Your task to perform on an android device: Open network settings Image 0: 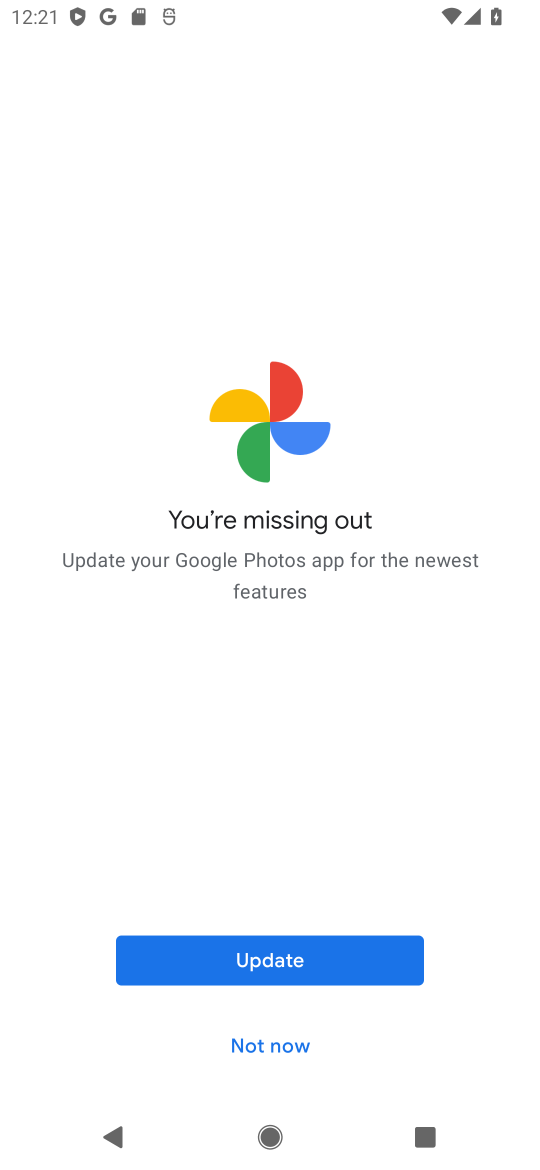
Step 0: press back button
Your task to perform on an android device: Open network settings Image 1: 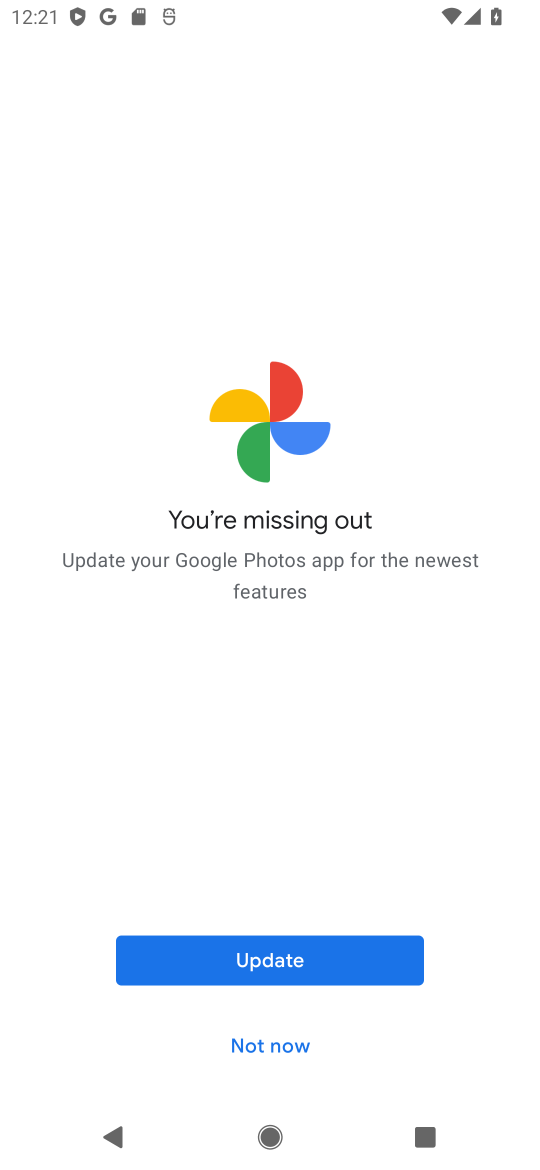
Step 1: press back button
Your task to perform on an android device: Open network settings Image 2: 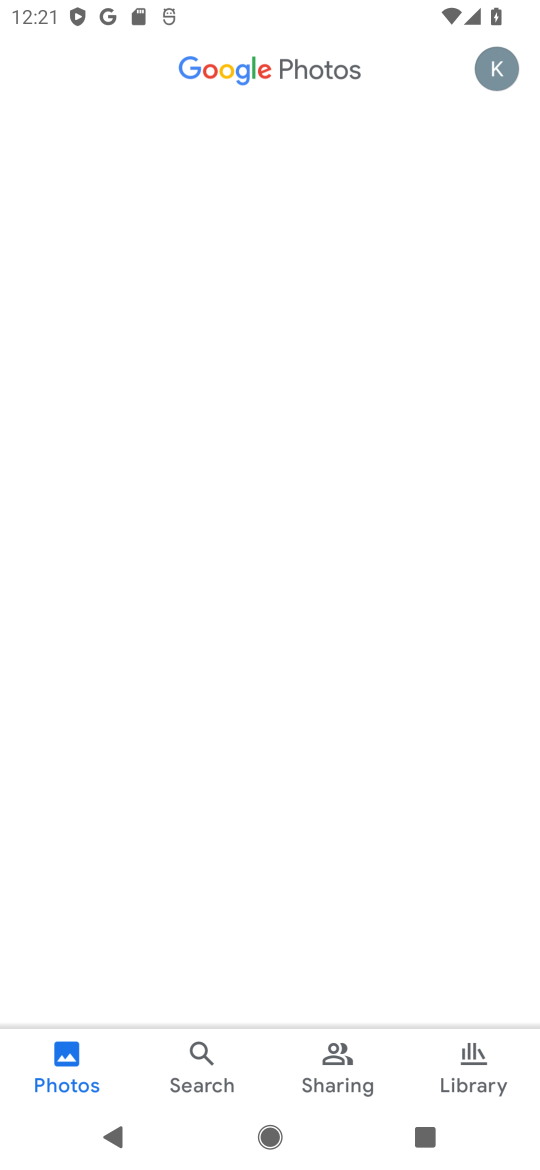
Step 2: press back button
Your task to perform on an android device: Open network settings Image 3: 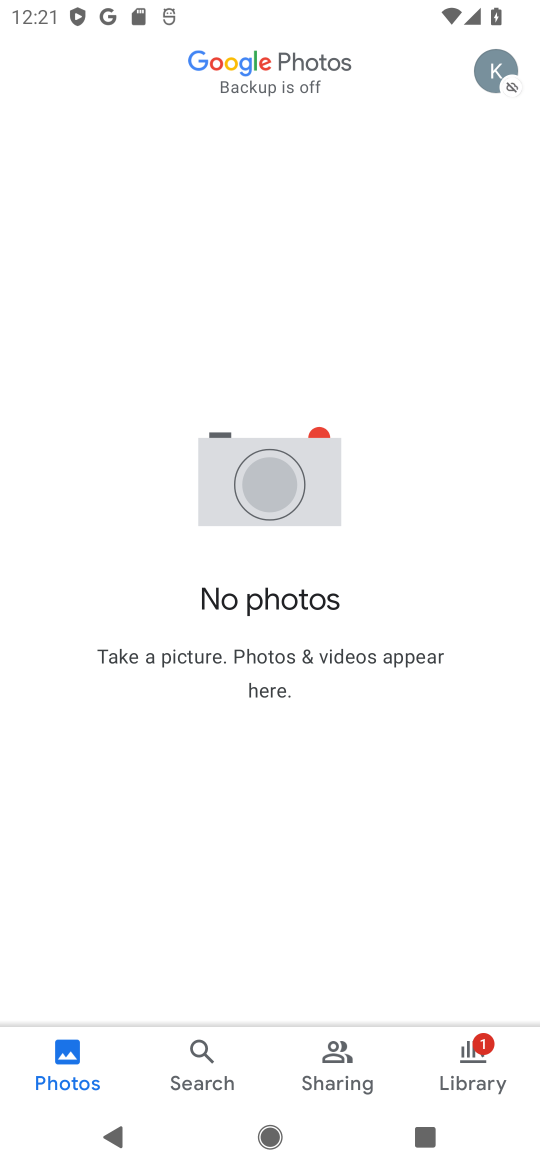
Step 3: press back button
Your task to perform on an android device: Open network settings Image 4: 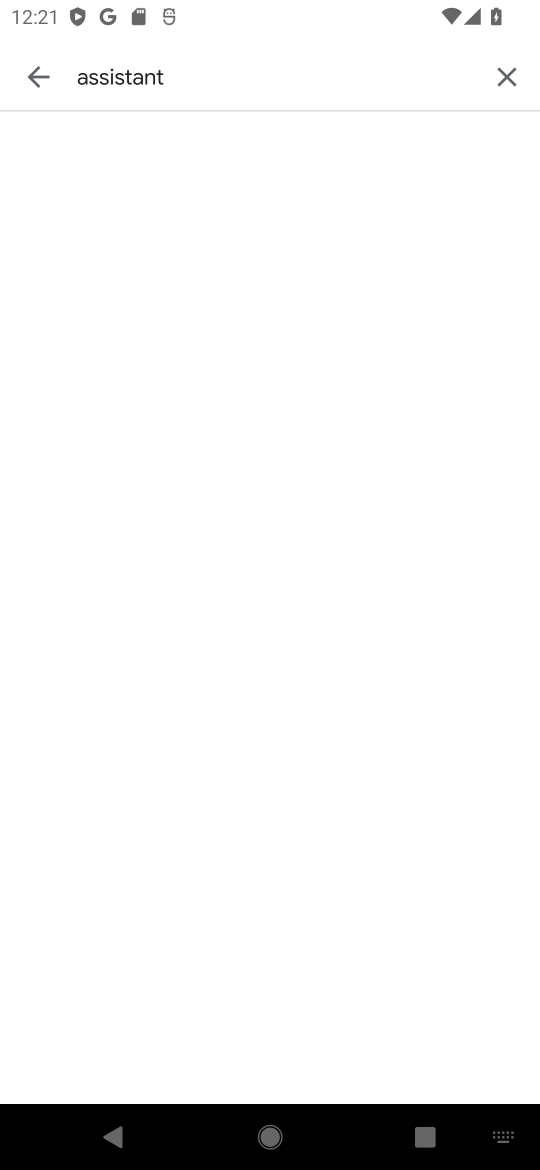
Step 4: press home button
Your task to perform on an android device: Open network settings Image 5: 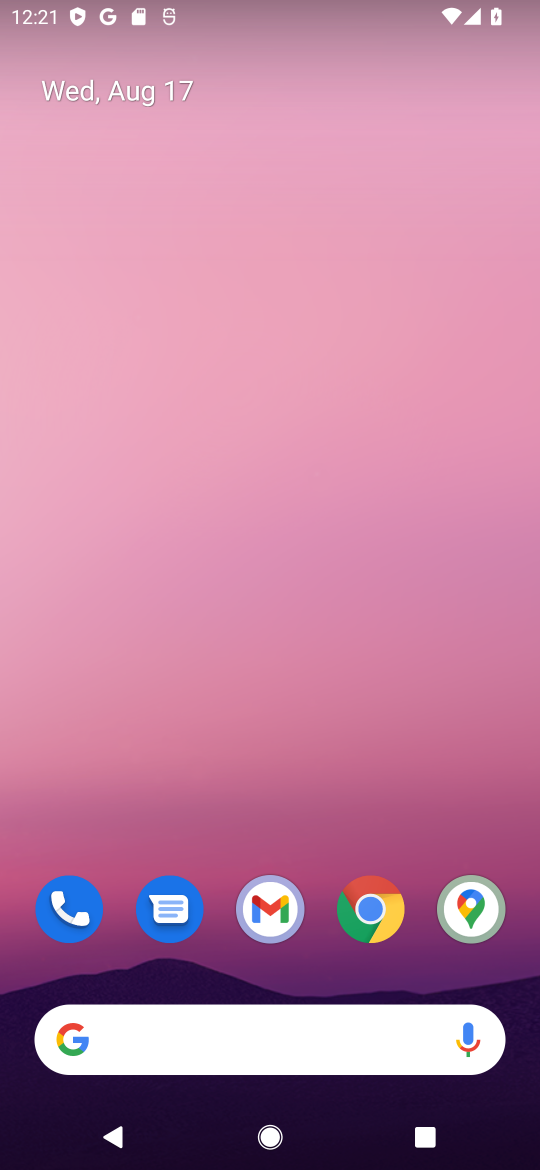
Step 5: drag from (308, 807) to (335, 106)
Your task to perform on an android device: Open network settings Image 6: 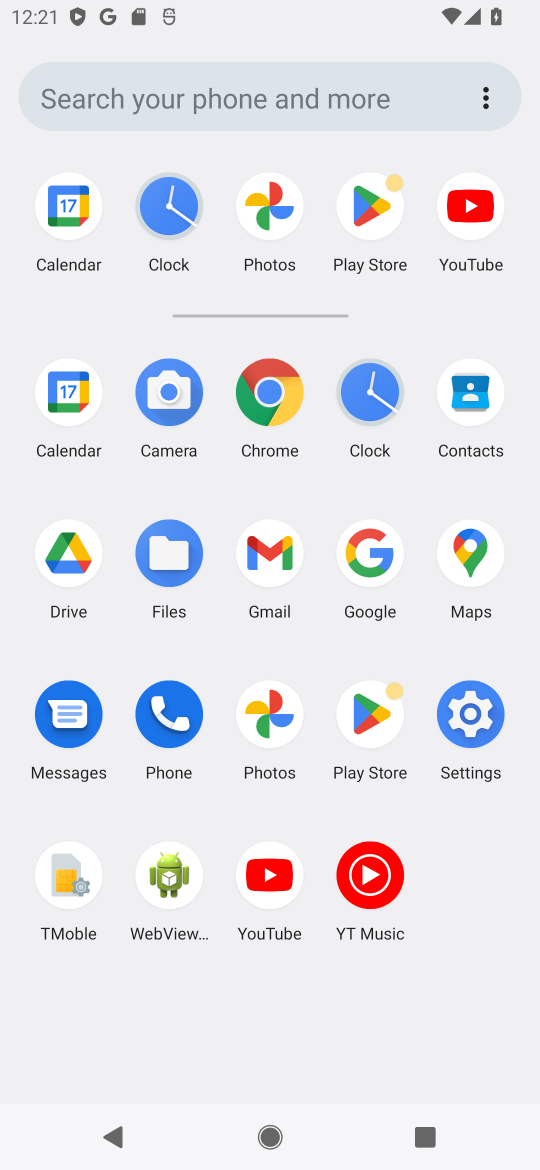
Step 6: click (462, 712)
Your task to perform on an android device: Open network settings Image 7: 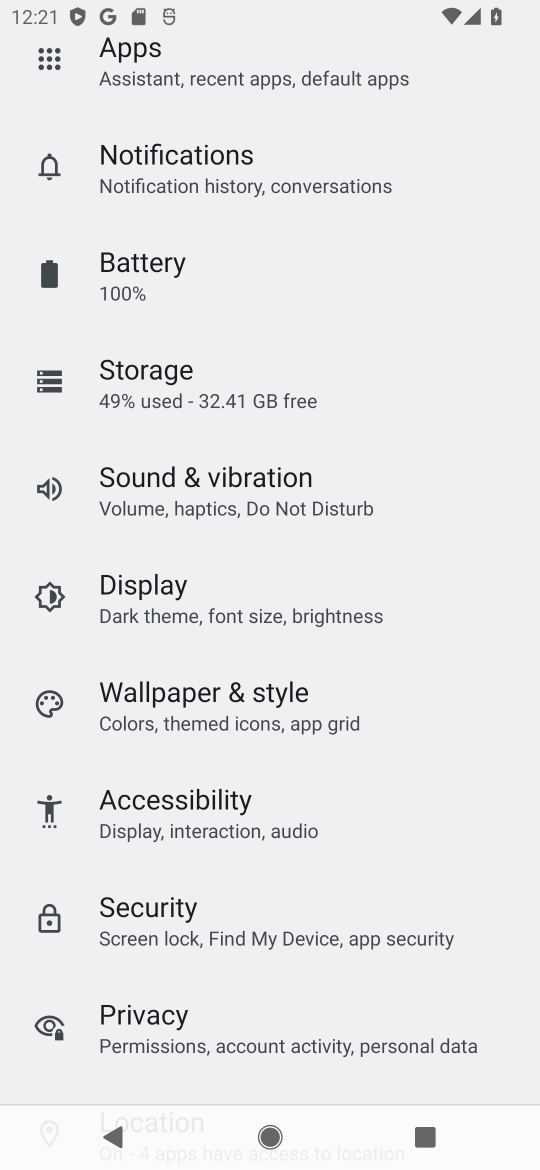
Step 7: drag from (261, 284) to (176, 665)
Your task to perform on an android device: Open network settings Image 8: 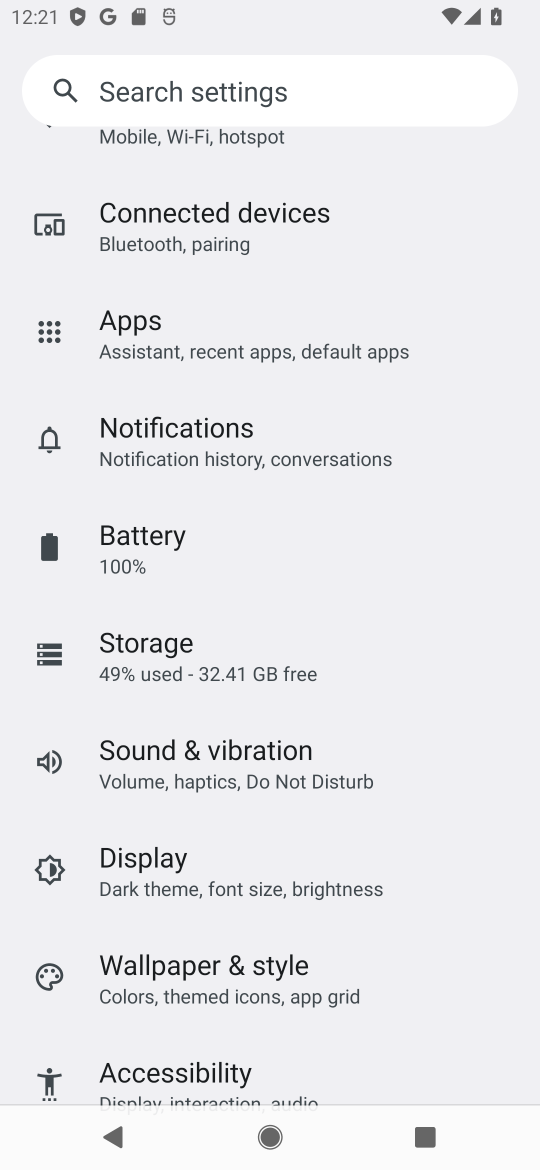
Step 8: drag from (287, 286) to (233, 725)
Your task to perform on an android device: Open network settings Image 9: 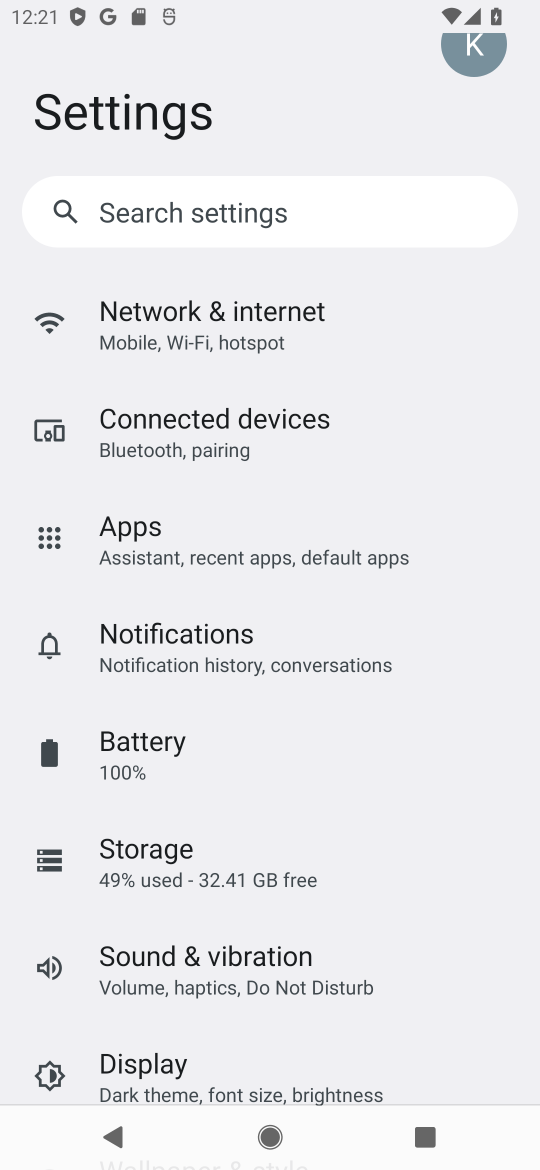
Step 9: click (205, 295)
Your task to perform on an android device: Open network settings Image 10: 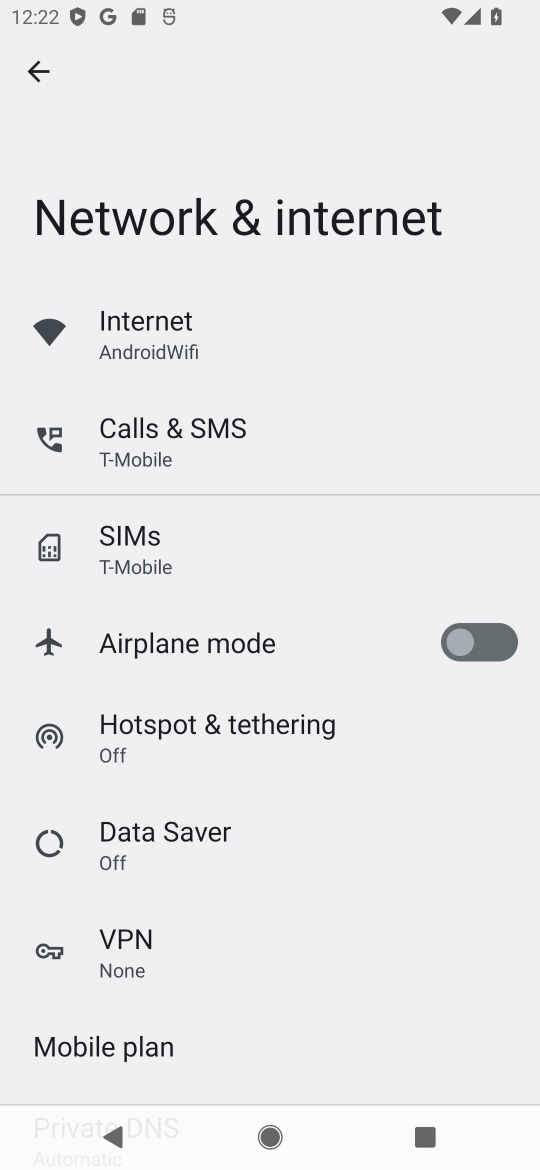
Step 10: task complete